Your task to perform on an android device: uninstall "Cash App" Image 0: 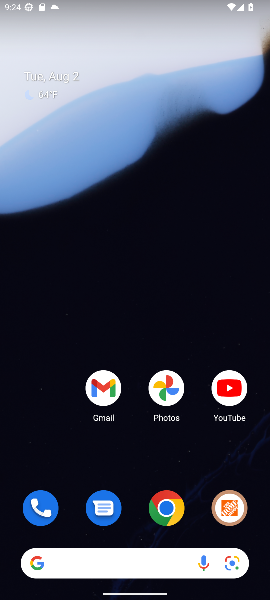
Step 0: drag from (103, 488) to (103, 66)
Your task to perform on an android device: uninstall "Cash App" Image 1: 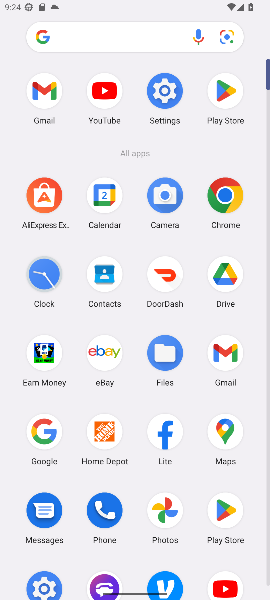
Step 1: click (237, 84)
Your task to perform on an android device: uninstall "Cash App" Image 2: 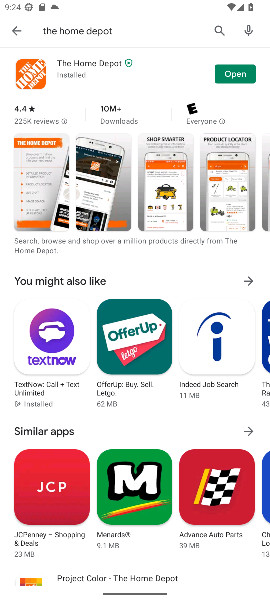
Step 2: drag from (161, 298) to (127, 577)
Your task to perform on an android device: uninstall "Cash App" Image 3: 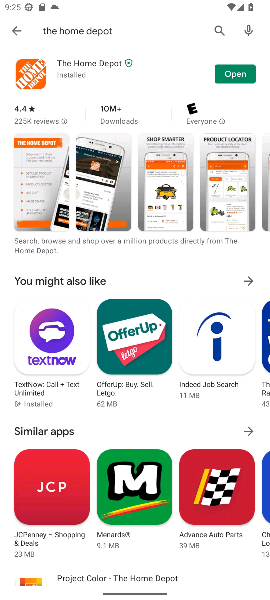
Step 3: click (12, 30)
Your task to perform on an android device: uninstall "Cash App" Image 4: 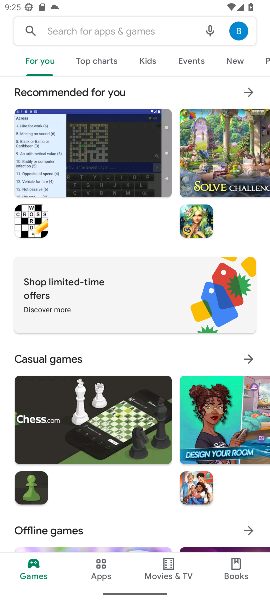
Step 4: click (110, 31)
Your task to perform on an android device: uninstall "Cash App" Image 5: 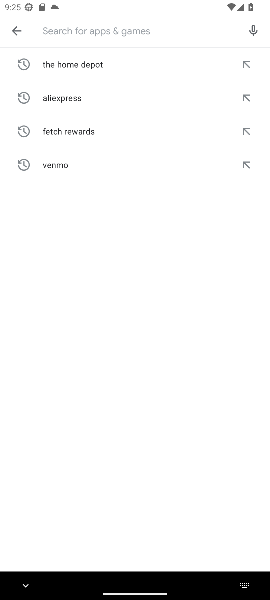
Step 5: type "Cash App"
Your task to perform on an android device: uninstall "Cash App" Image 6: 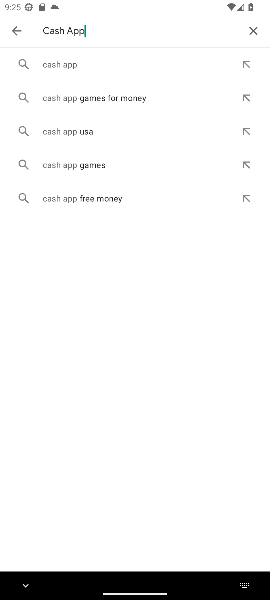
Step 6: click (112, 61)
Your task to perform on an android device: uninstall "Cash App" Image 7: 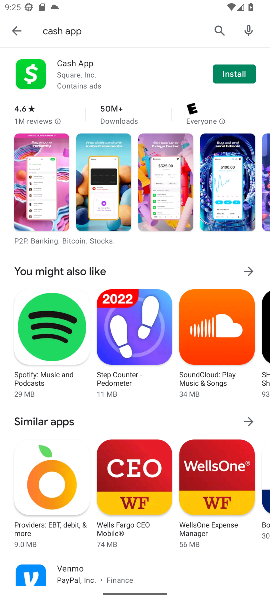
Step 7: task complete